Your task to perform on an android device: When is my next appointment? Image 0: 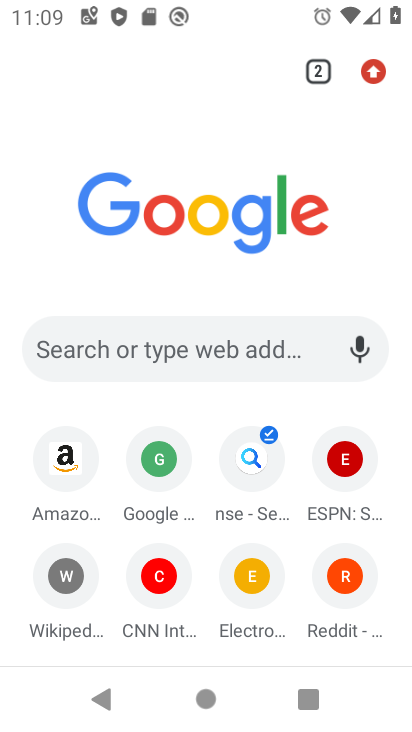
Step 0: press home button
Your task to perform on an android device: When is my next appointment? Image 1: 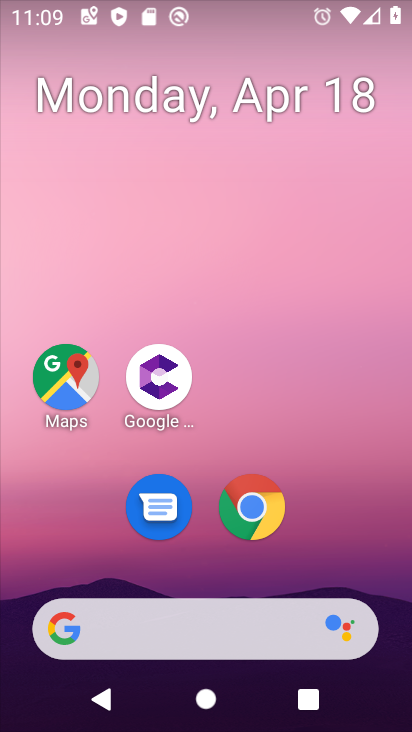
Step 1: drag from (288, 663) to (264, 288)
Your task to perform on an android device: When is my next appointment? Image 2: 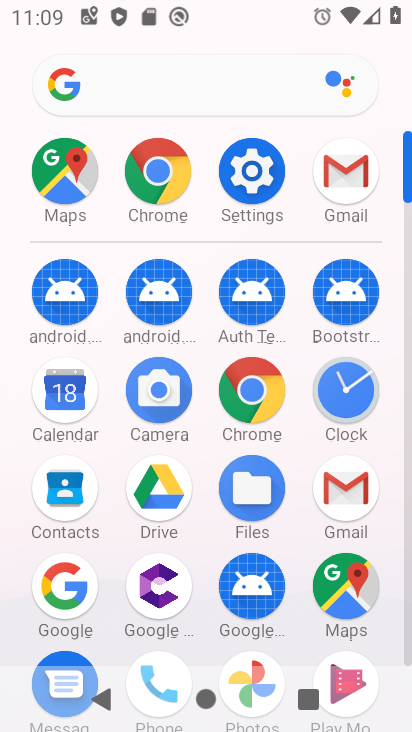
Step 2: click (69, 406)
Your task to perform on an android device: When is my next appointment? Image 3: 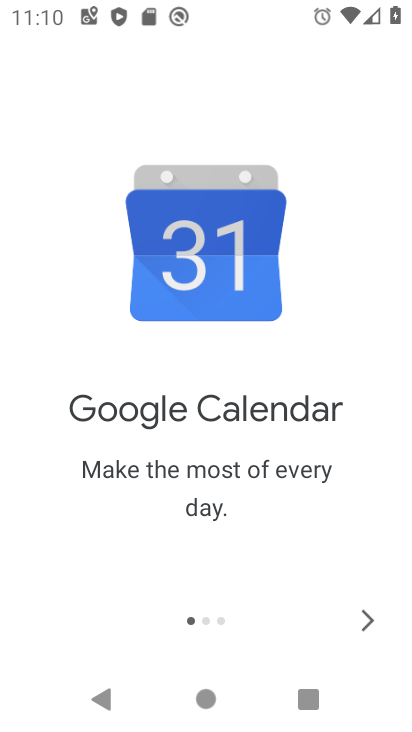
Step 3: click (366, 649)
Your task to perform on an android device: When is my next appointment? Image 4: 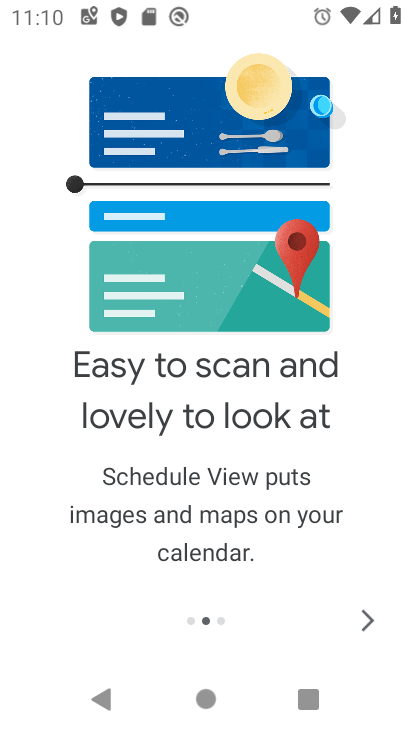
Step 4: click (359, 645)
Your task to perform on an android device: When is my next appointment? Image 5: 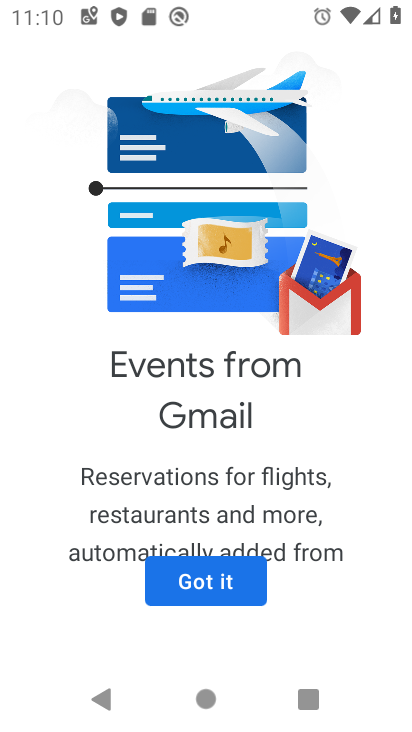
Step 5: click (227, 572)
Your task to perform on an android device: When is my next appointment? Image 6: 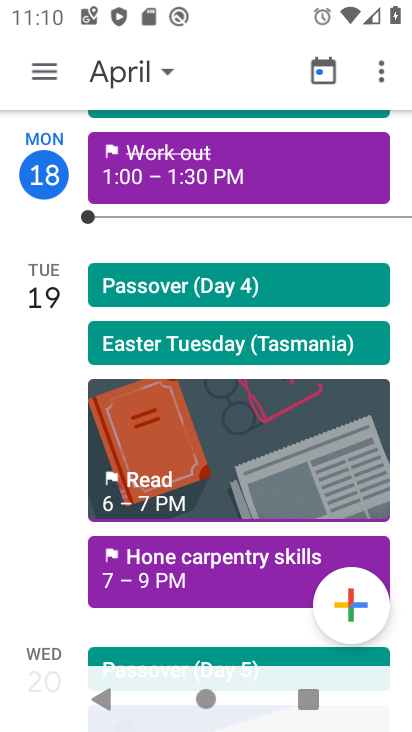
Step 6: click (47, 70)
Your task to perform on an android device: When is my next appointment? Image 7: 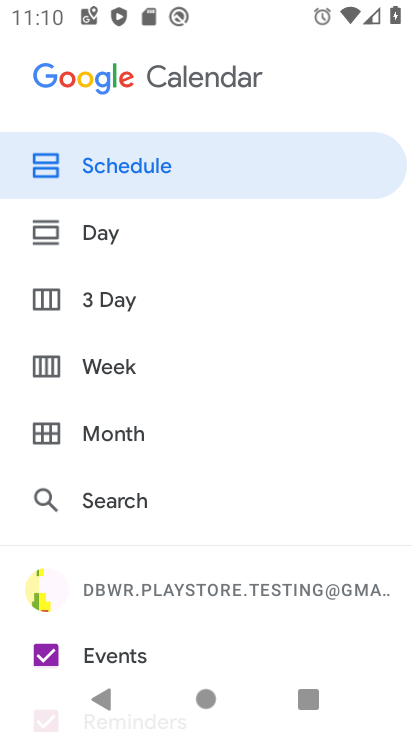
Step 7: click (106, 166)
Your task to perform on an android device: When is my next appointment? Image 8: 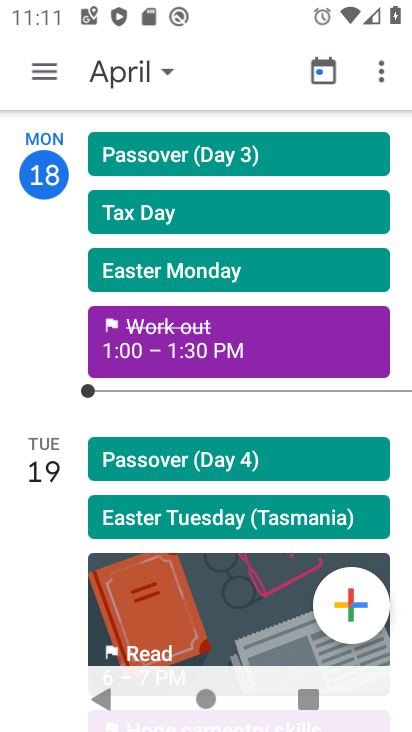
Step 8: click (59, 469)
Your task to perform on an android device: When is my next appointment? Image 9: 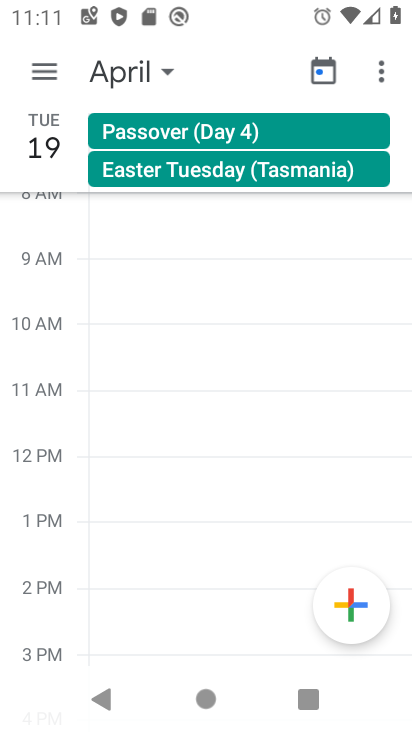
Step 9: task complete